Your task to perform on an android device: Open Google Maps and go to "Timeline" Image 0: 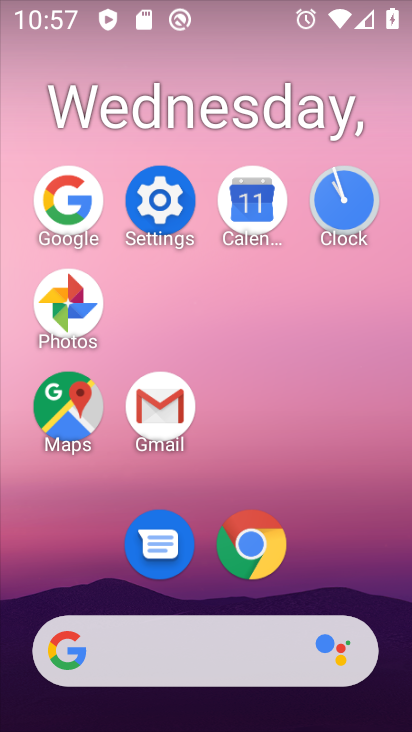
Step 0: click (71, 415)
Your task to perform on an android device: Open Google Maps and go to "Timeline" Image 1: 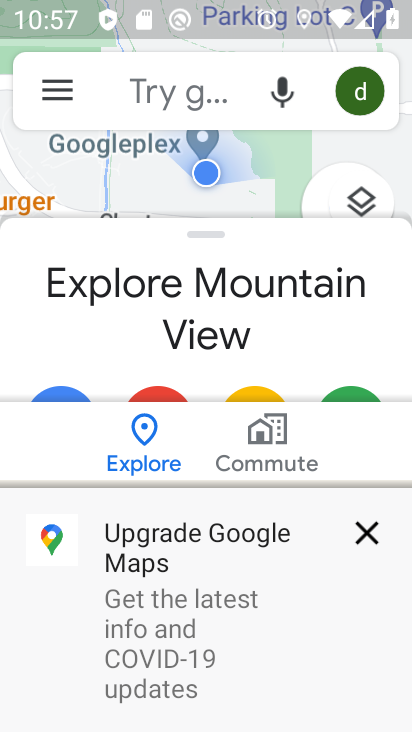
Step 1: click (65, 82)
Your task to perform on an android device: Open Google Maps and go to "Timeline" Image 2: 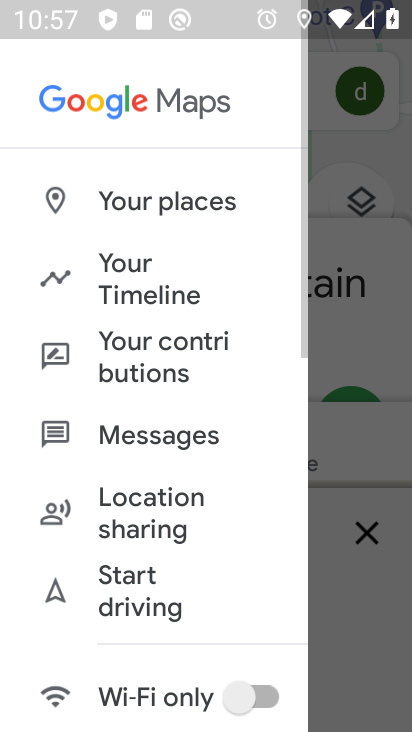
Step 2: click (147, 299)
Your task to perform on an android device: Open Google Maps and go to "Timeline" Image 3: 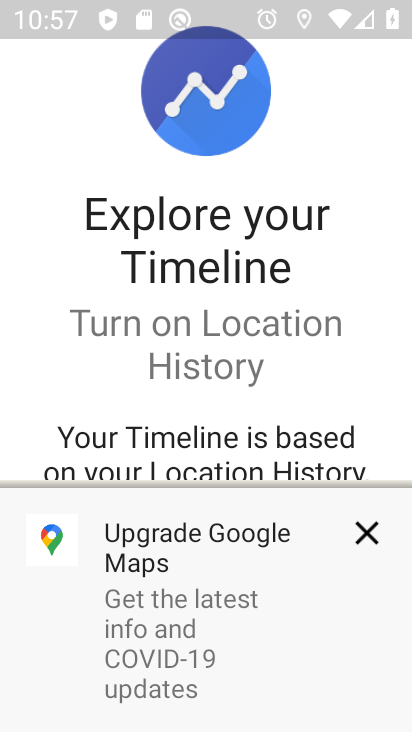
Step 3: click (364, 531)
Your task to perform on an android device: Open Google Maps and go to "Timeline" Image 4: 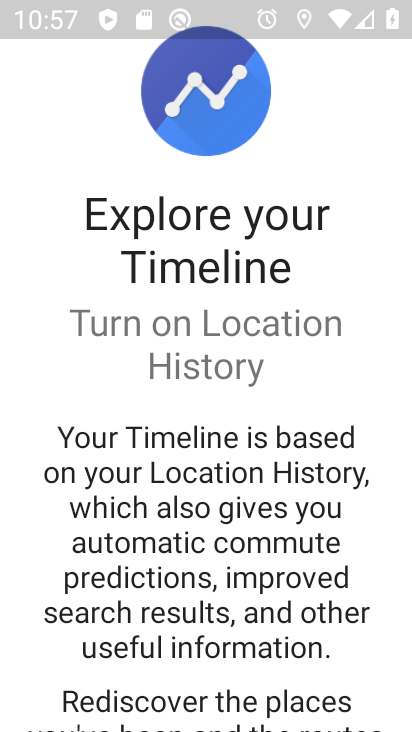
Step 4: drag from (283, 660) to (264, 203)
Your task to perform on an android device: Open Google Maps and go to "Timeline" Image 5: 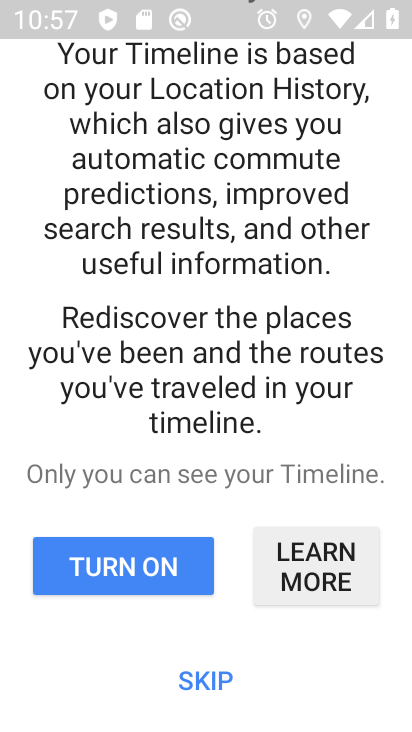
Step 5: click (182, 577)
Your task to perform on an android device: Open Google Maps and go to "Timeline" Image 6: 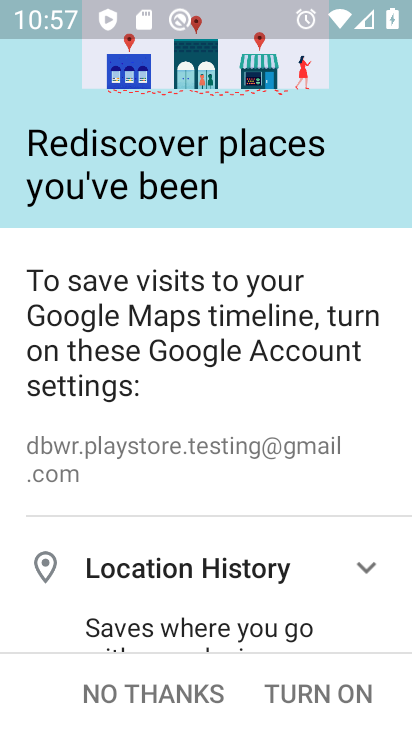
Step 6: click (355, 697)
Your task to perform on an android device: Open Google Maps and go to "Timeline" Image 7: 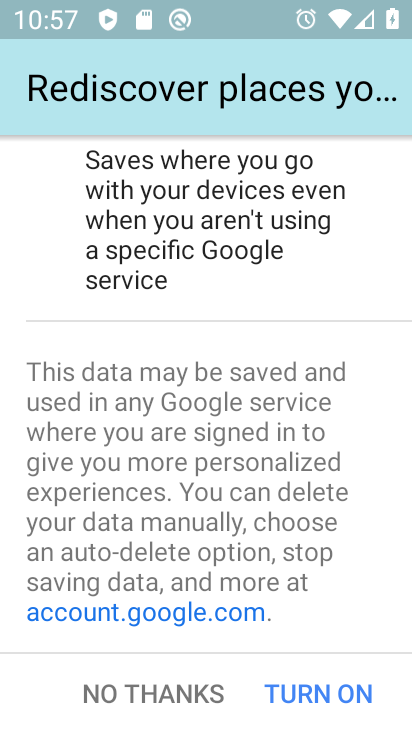
Step 7: click (326, 696)
Your task to perform on an android device: Open Google Maps and go to "Timeline" Image 8: 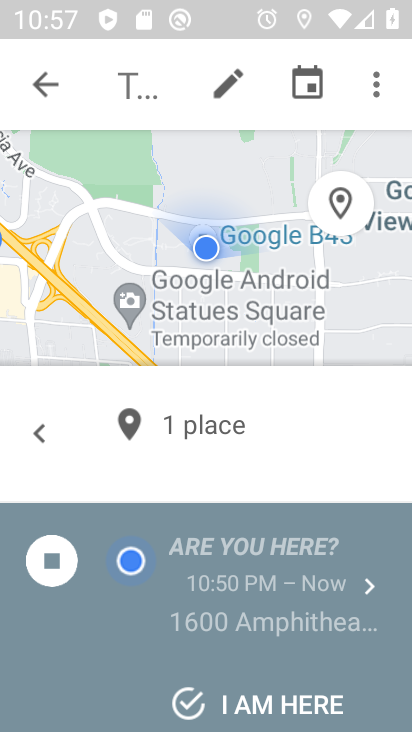
Step 8: task complete